Your task to perform on an android device: View the shopping cart on amazon.com. Add "jbl charge 4" to the cart on amazon.com, then select checkout. Image 0: 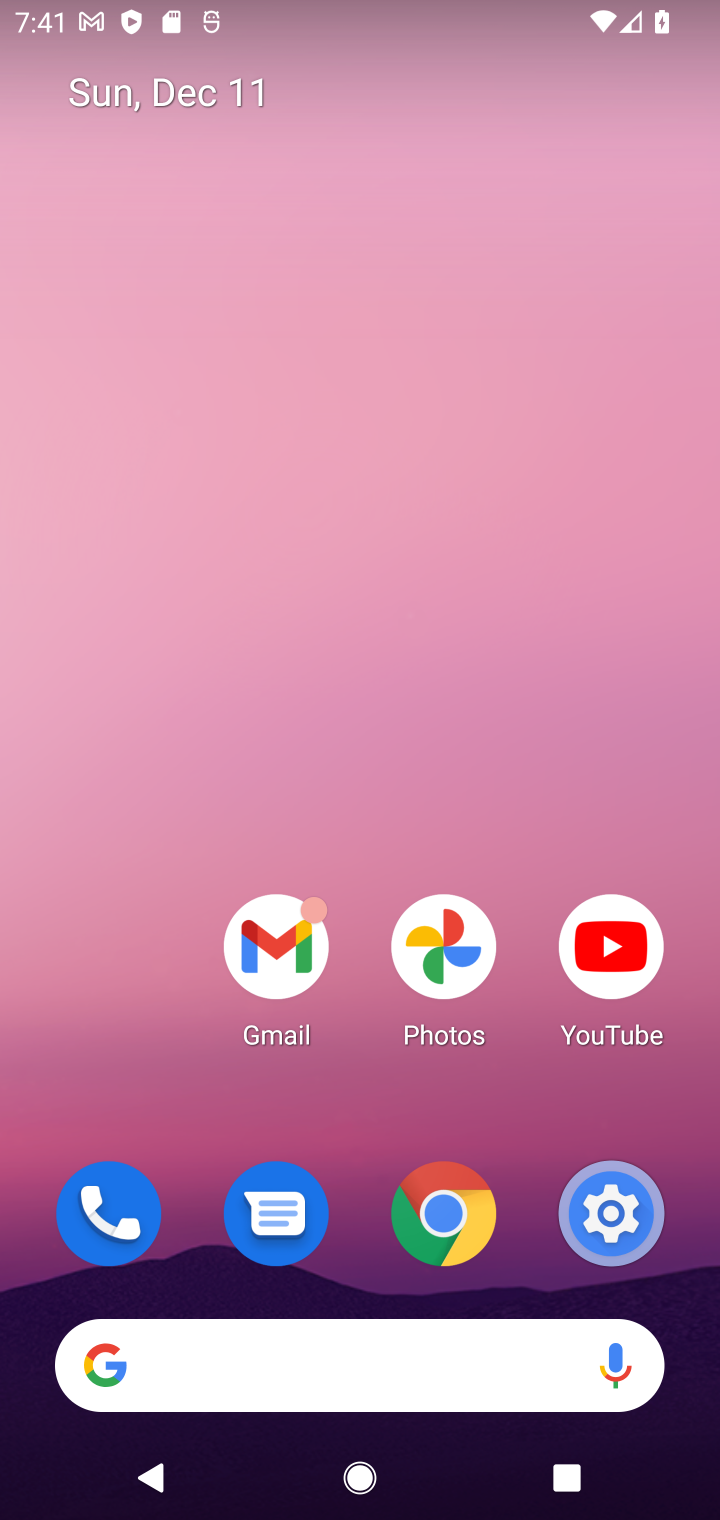
Step 0: click (311, 1372)
Your task to perform on an android device: View the shopping cart on amazon.com. Add "jbl charge 4" to the cart on amazon.com, then select checkout. Image 1: 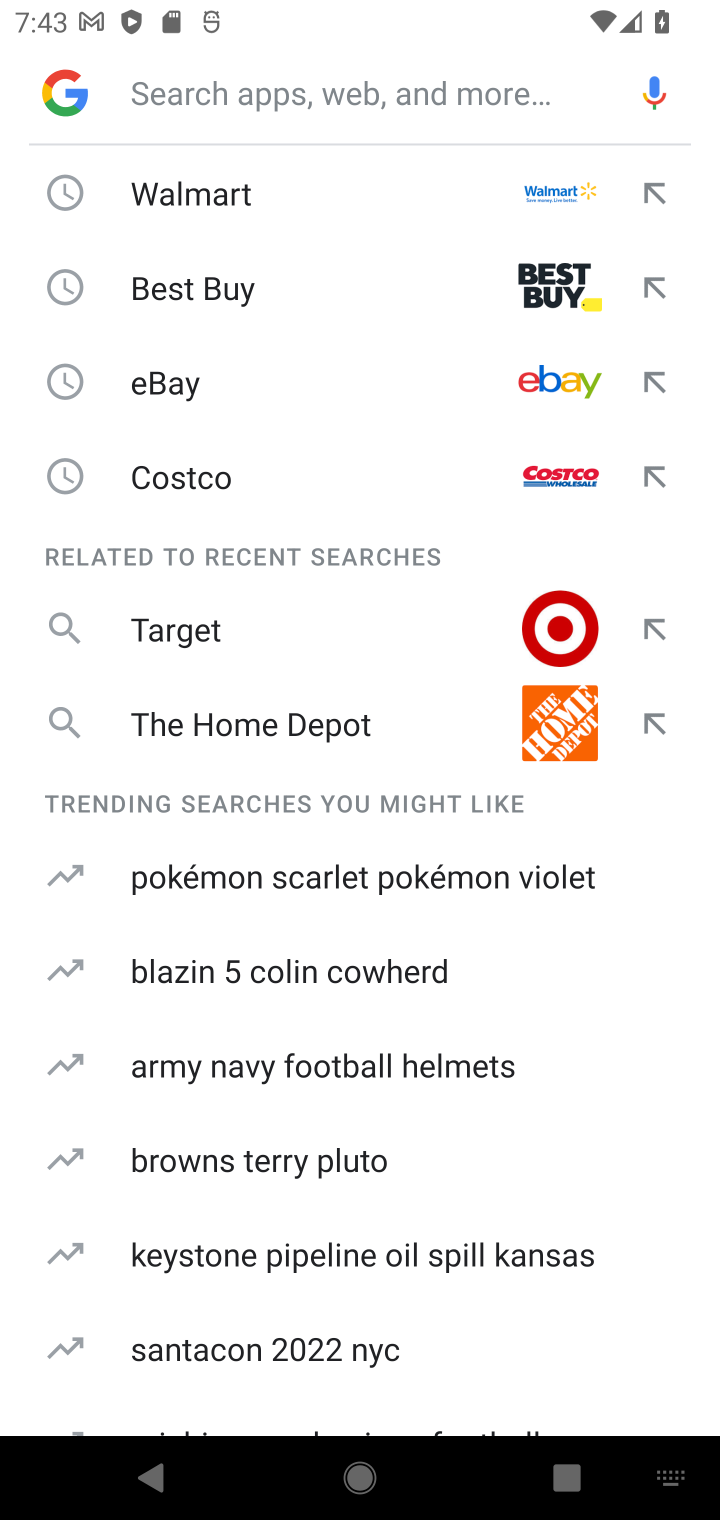
Step 1: type "amazon"
Your task to perform on an android device: View the shopping cart on amazon.com. Add "jbl charge 4" to the cart on amazon.com, then select checkout. Image 2: 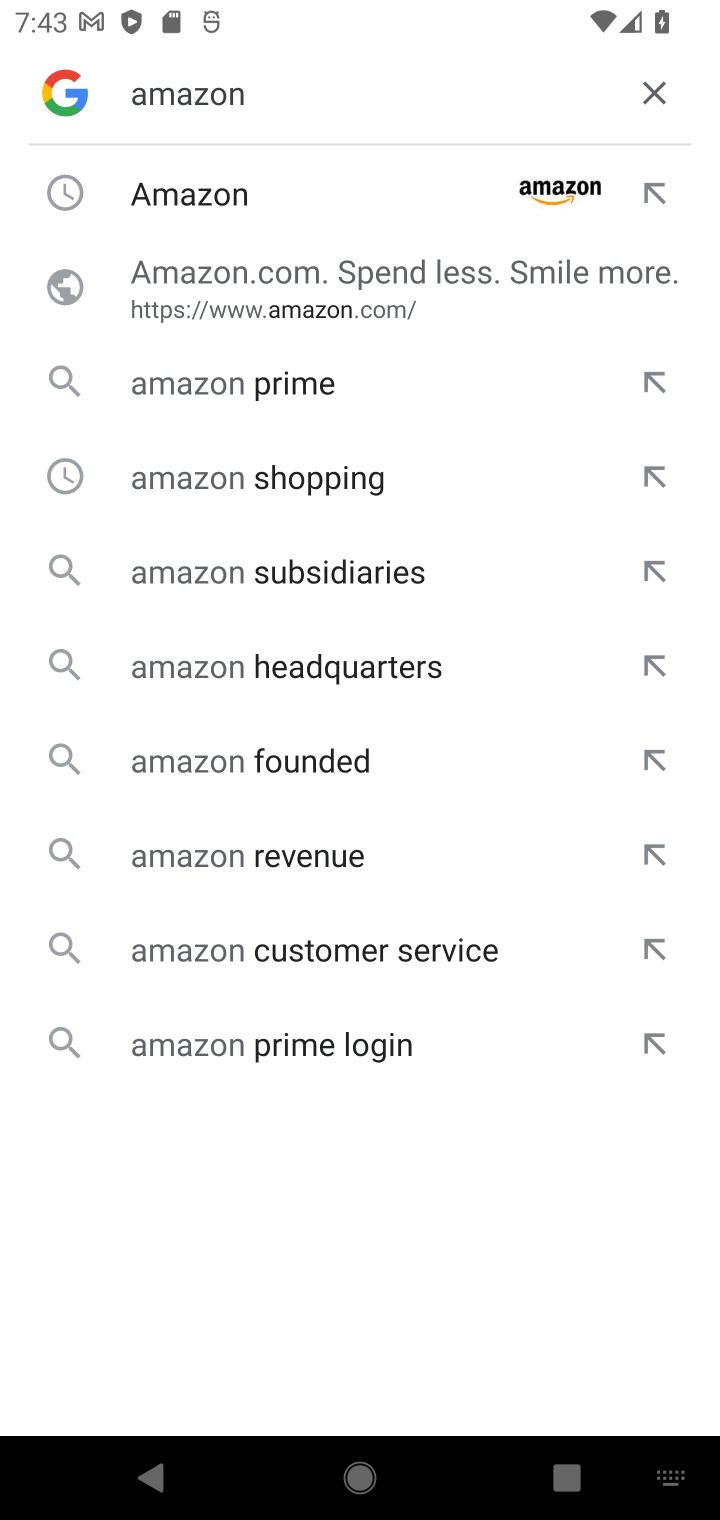
Step 2: click (258, 165)
Your task to perform on an android device: View the shopping cart on amazon.com. Add "jbl charge 4" to the cart on amazon.com, then select checkout. Image 3: 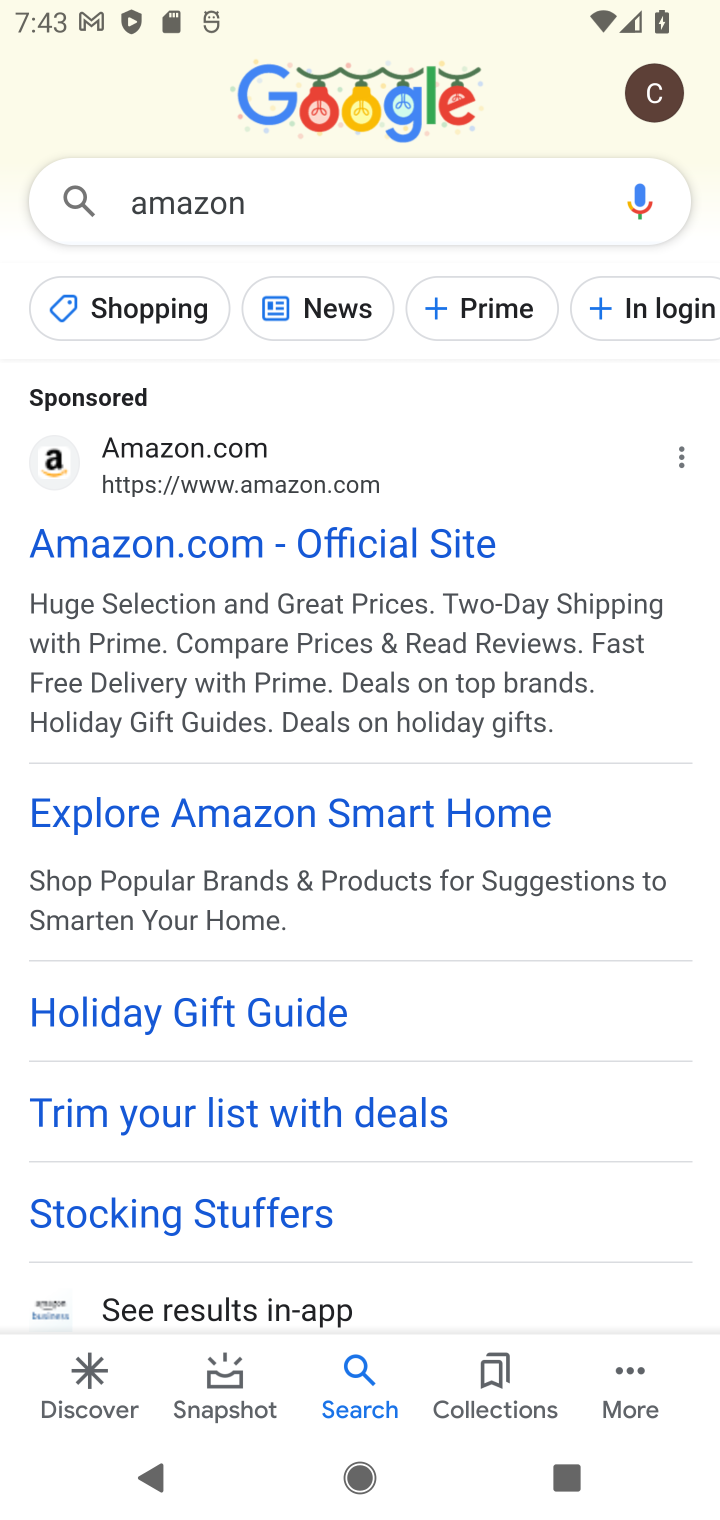
Step 3: click (206, 510)
Your task to perform on an android device: View the shopping cart on amazon.com. Add "jbl charge 4" to the cart on amazon.com, then select checkout. Image 4: 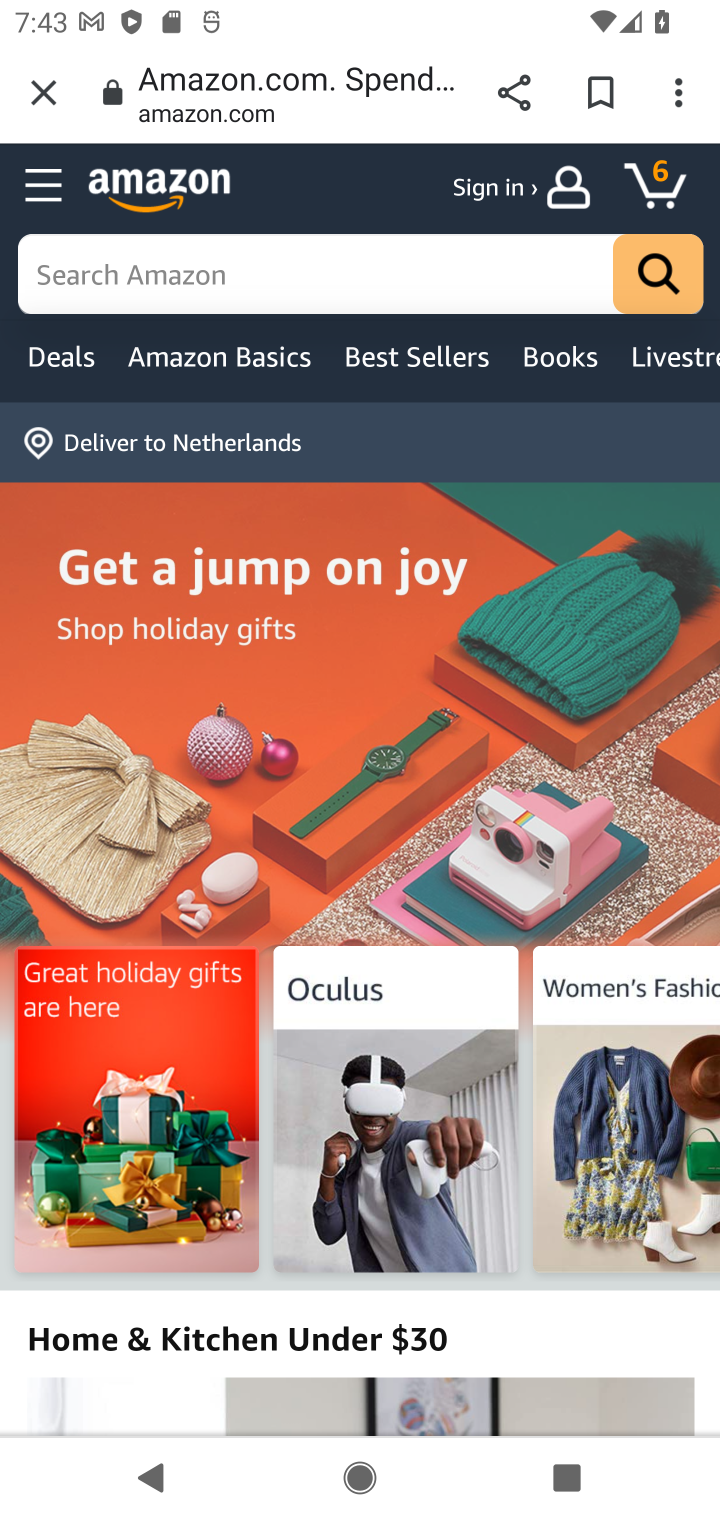
Step 4: click (268, 296)
Your task to perform on an android device: View the shopping cart on amazon.com. Add "jbl charge 4" to the cart on amazon.com, then select checkout. Image 5: 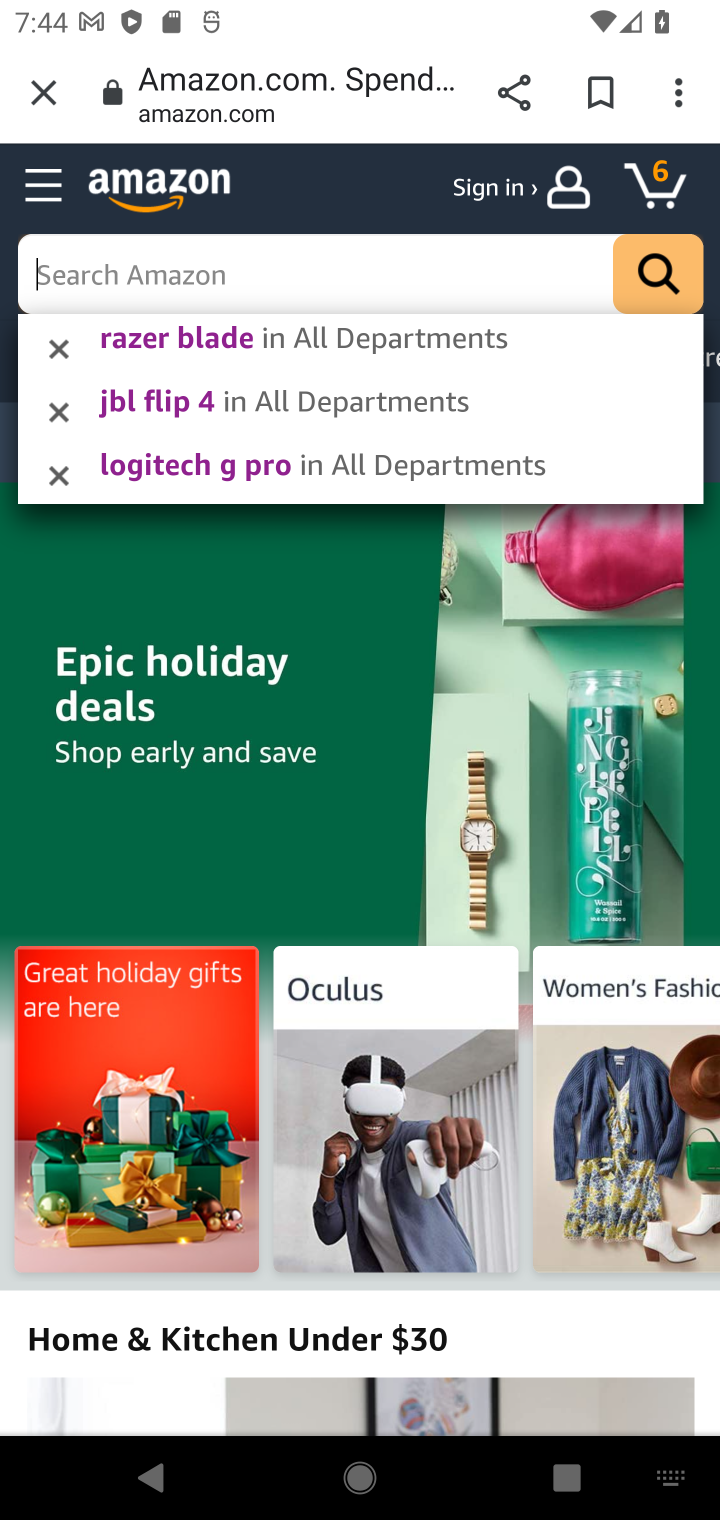
Step 5: type "jbl flip 4"
Your task to perform on an android device: View the shopping cart on amazon.com. Add "jbl charge 4" to the cart on amazon.com, then select checkout. Image 6: 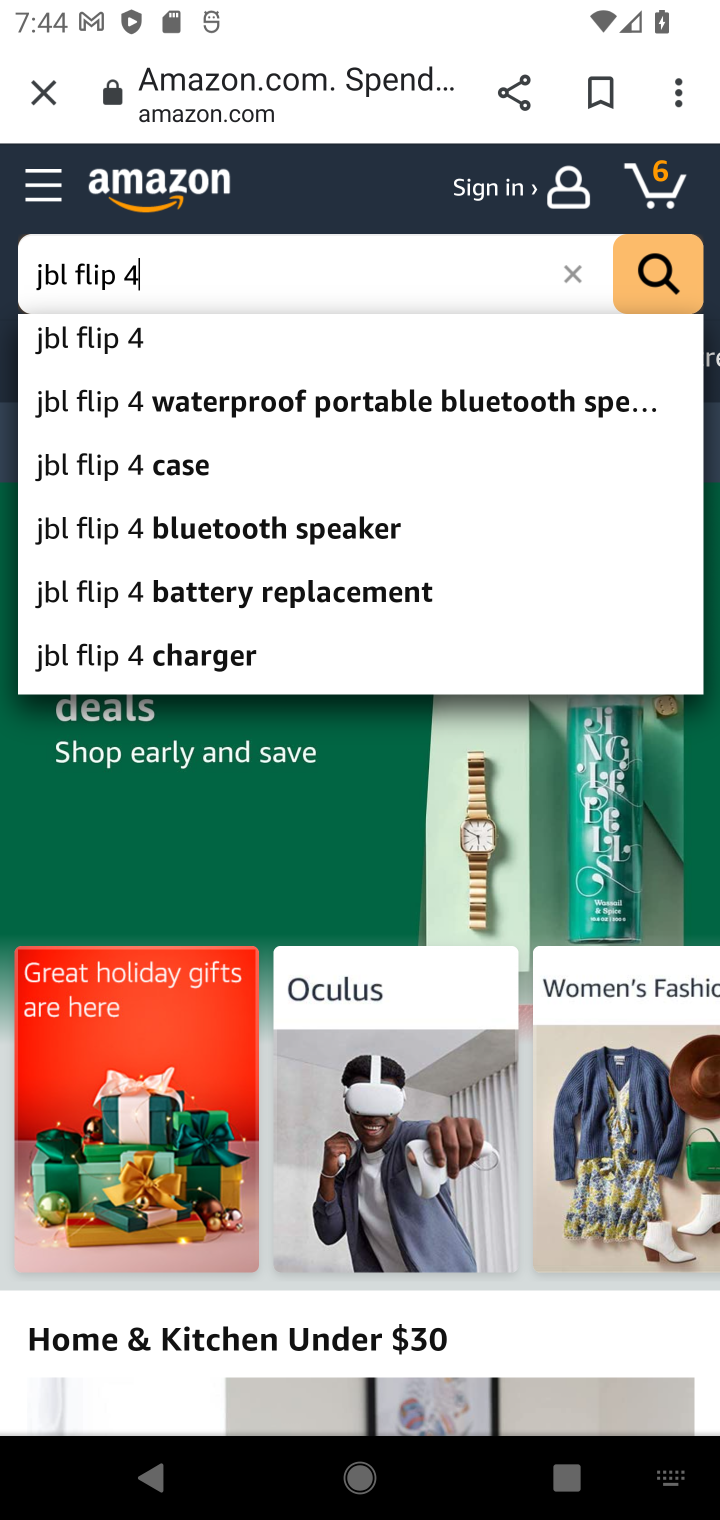
Step 6: click (680, 283)
Your task to perform on an android device: View the shopping cart on amazon.com. Add "jbl charge 4" to the cart on amazon.com, then select checkout. Image 7: 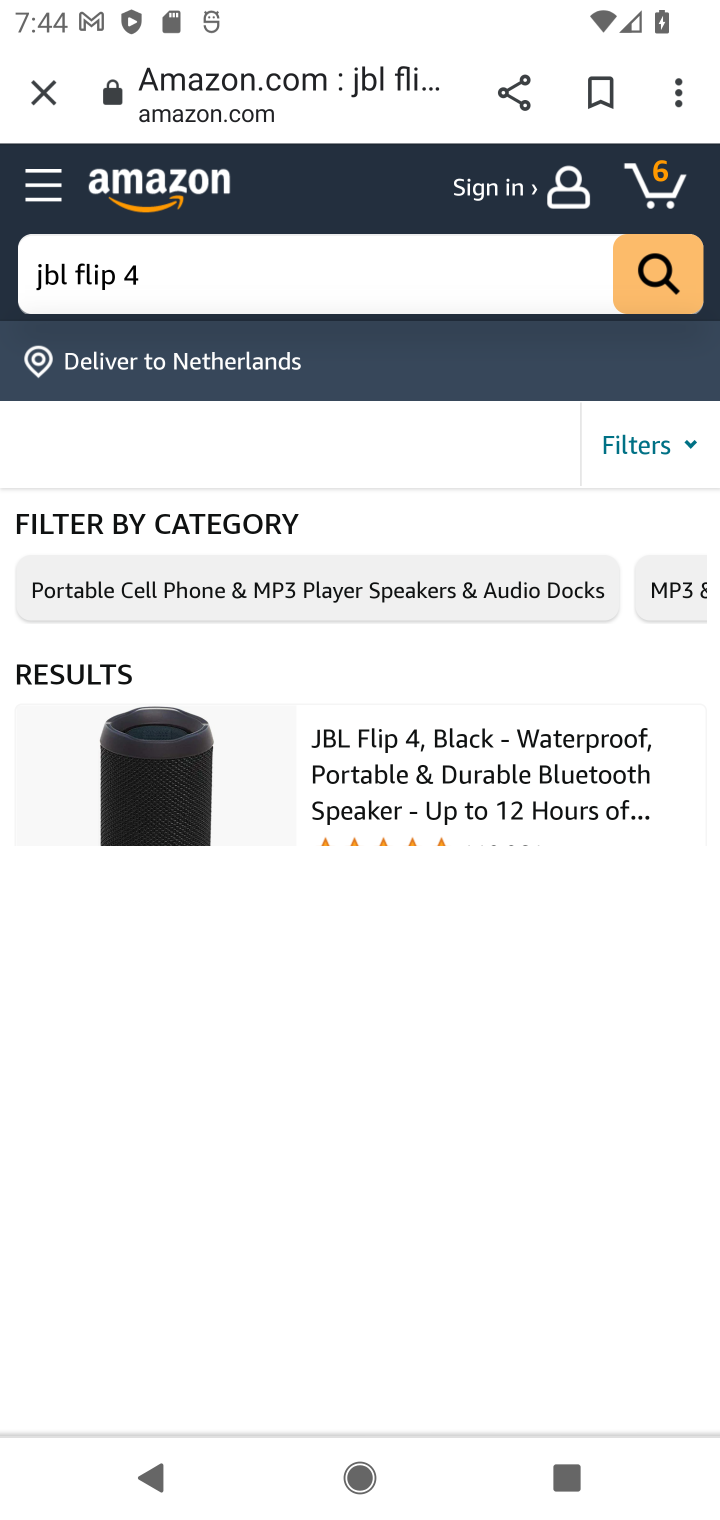
Step 7: click (418, 787)
Your task to perform on an android device: View the shopping cart on amazon.com. Add "jbl charge 4" to the cart on amazon.com, then select checkout. Image 8: 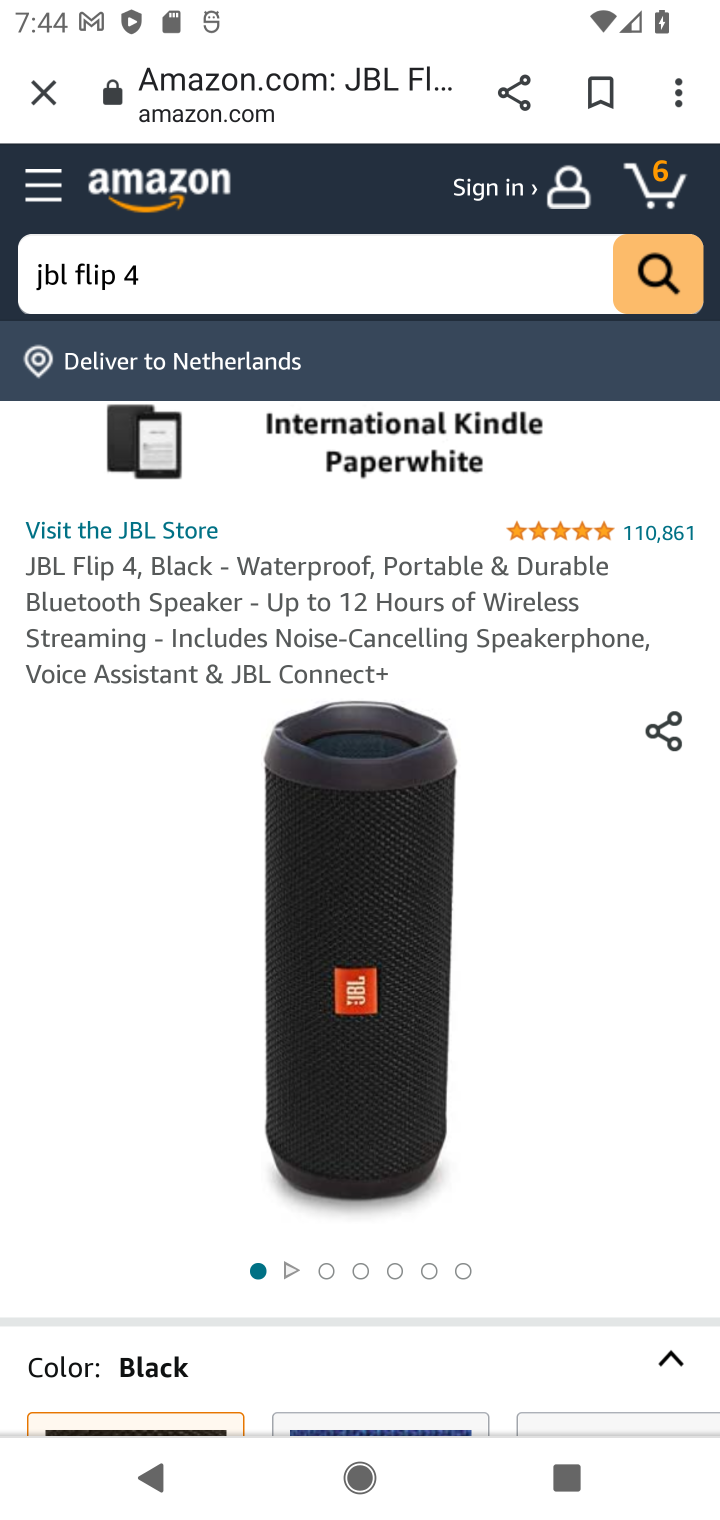
Step 8: drag from (296, 1171) to (189, 462)
Your task to perform on an android device: View the shopping cart on amazon.com. Add "jbl charge 4" to the cart on amazon.com, then select checkout. Image 9: 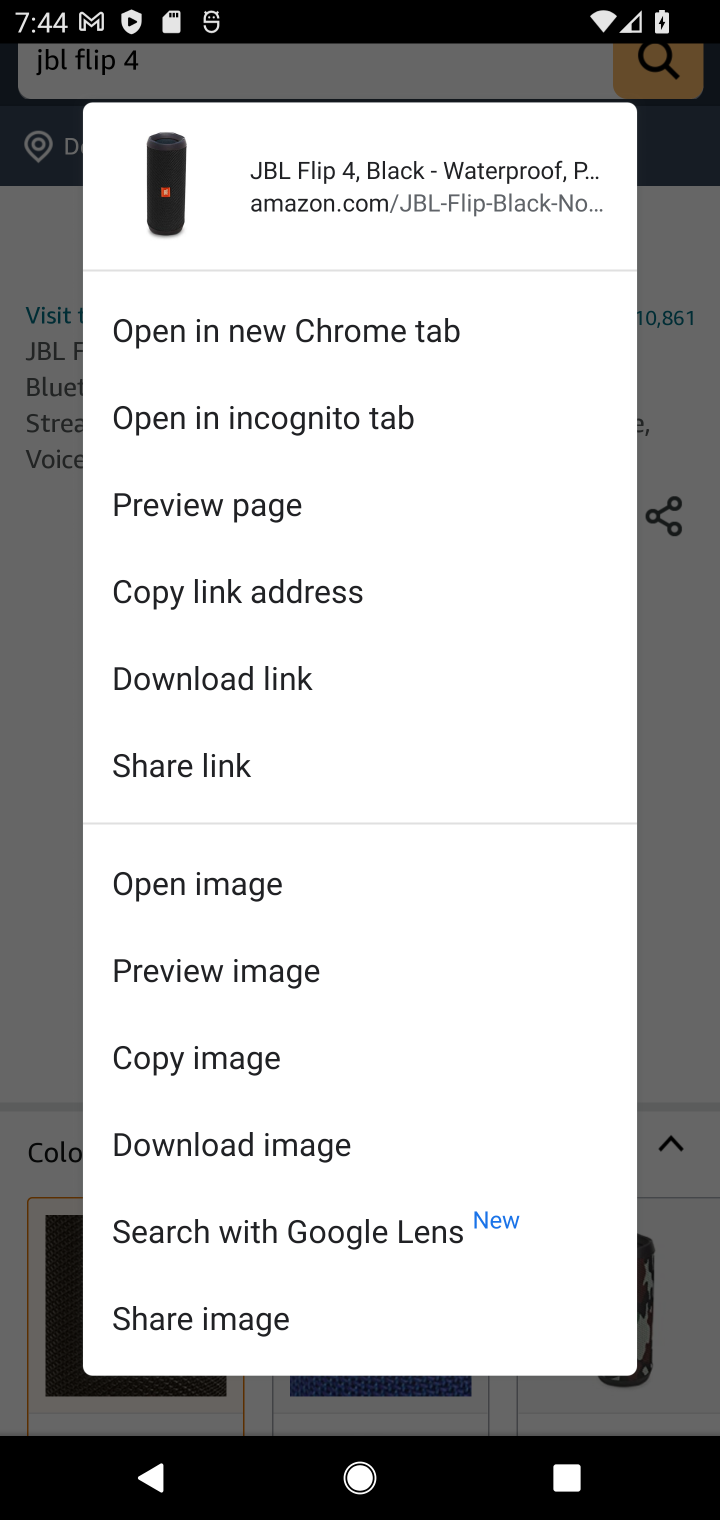
Step 9: click (26, 1116)
Your task to perform on an android device: View the shopping cart on amazon.com. Add "jbl charge 4" to the cart on amazon.com, then select checkout. Image 10: 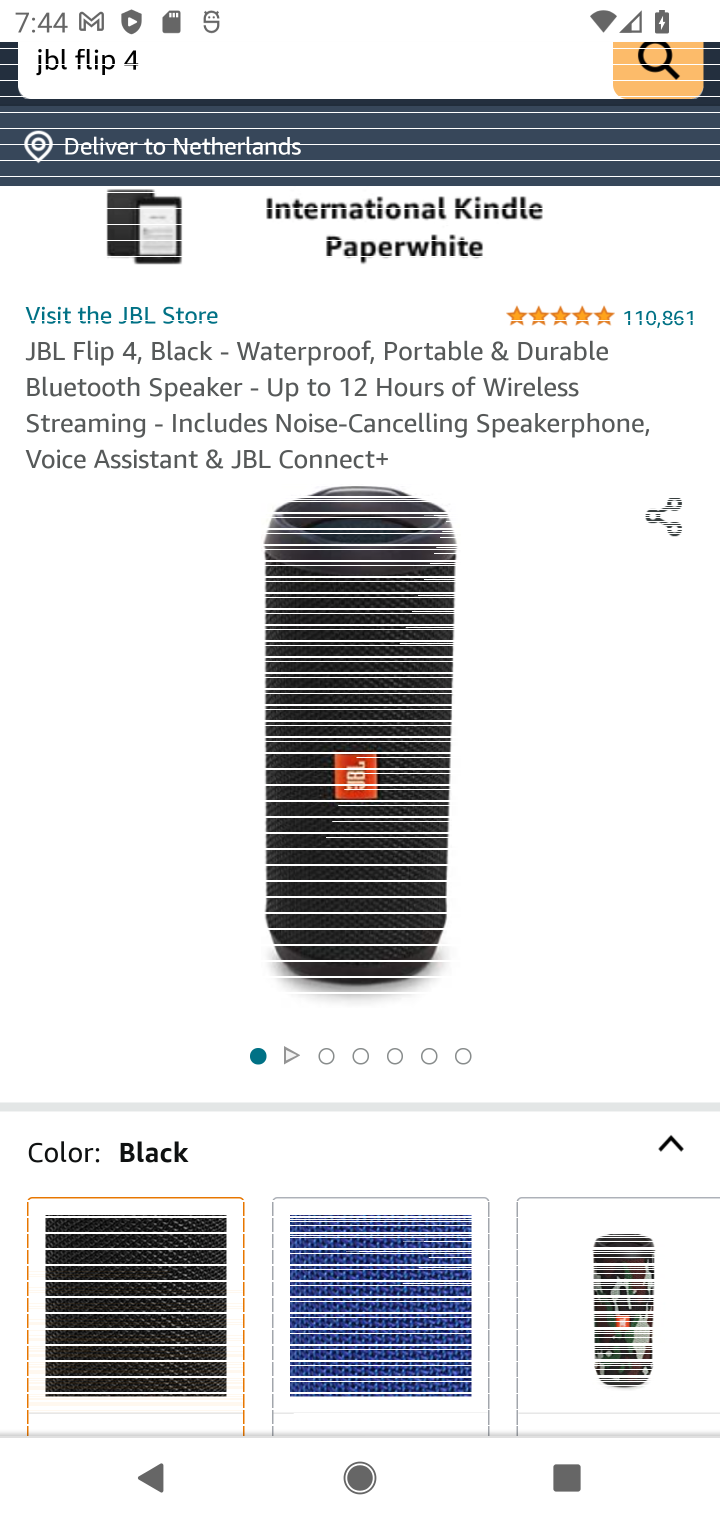
Step 10: task complete